Your task to perform on an android device: What's the news in Chile? Image 0: 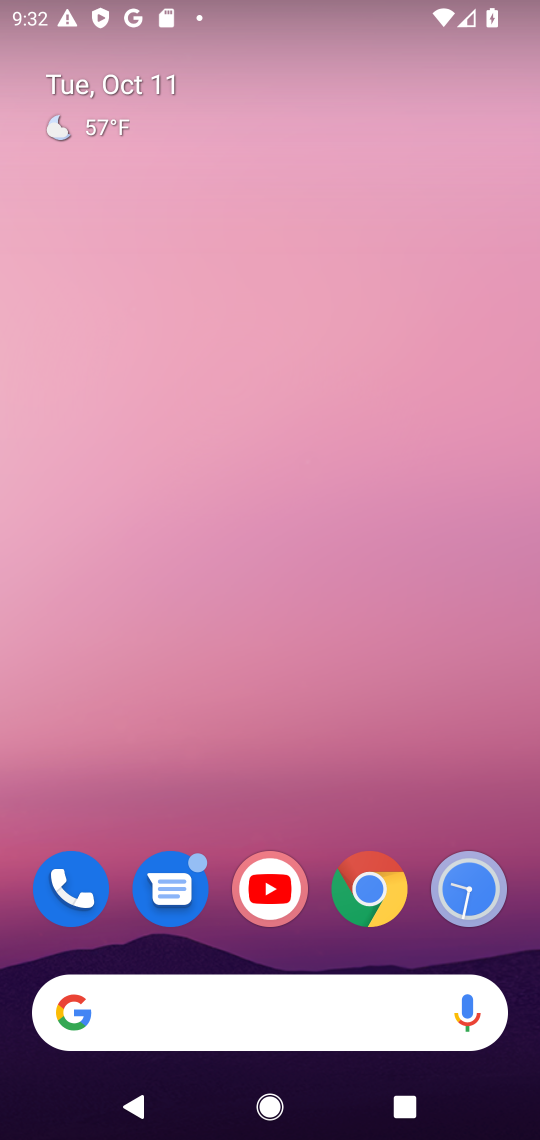
Step 0: click (323, 1007)
Your task to perform on an android device: What's the news in Chile? Image 1: 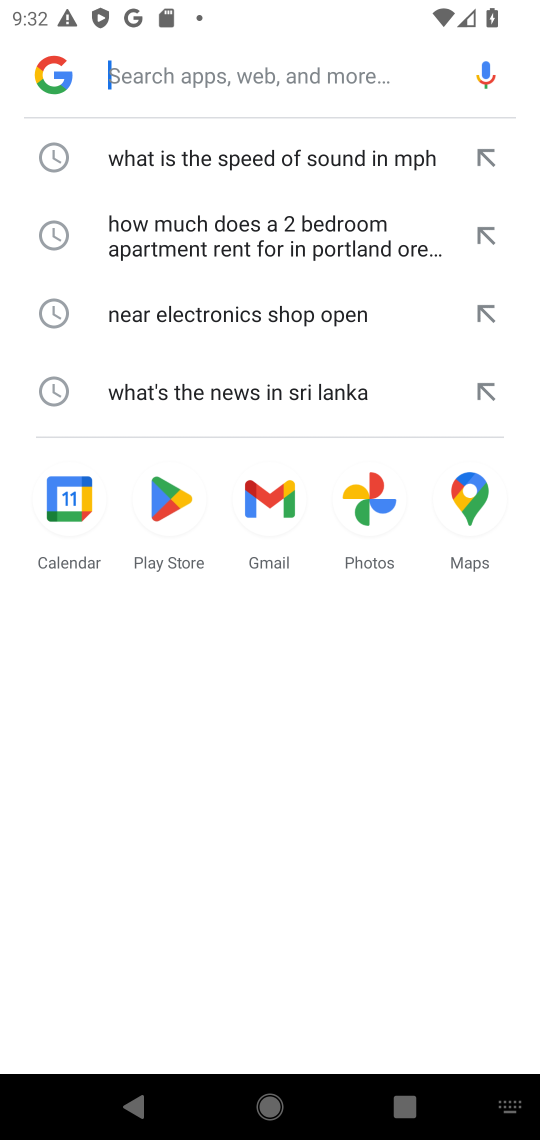
Step 1: click (159, 63)
Your task to perform on an android device: What's the news in Chile? Image 2: 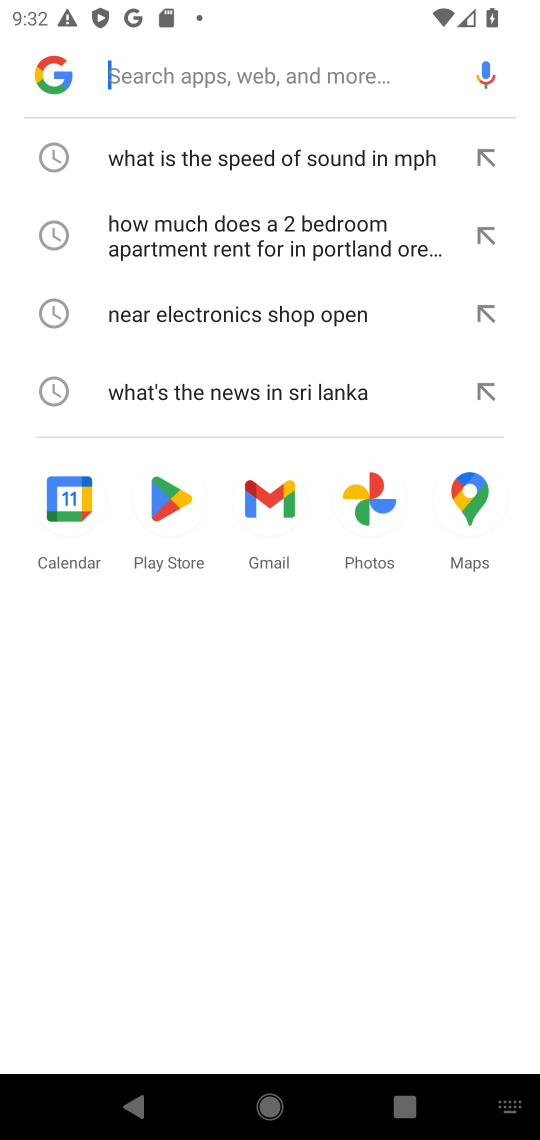
Step 2: type "What's the news in Chile?"
Your task to perform on an android device: What's the news in Chile? Image 3: 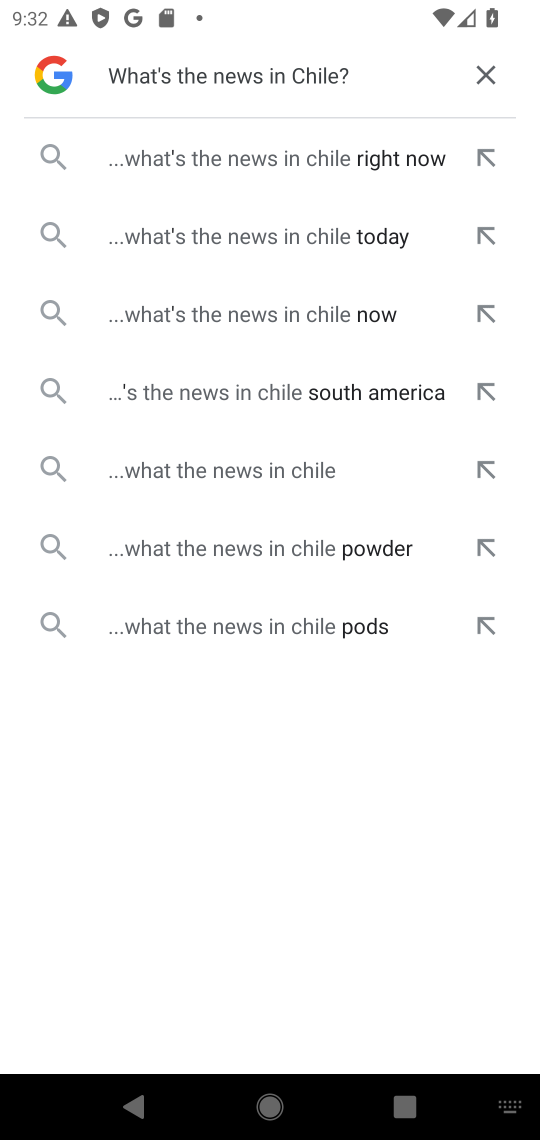
Step 3: click (213, 316)
Your task to perform on an android device: What's the news in Chile? Image 4: 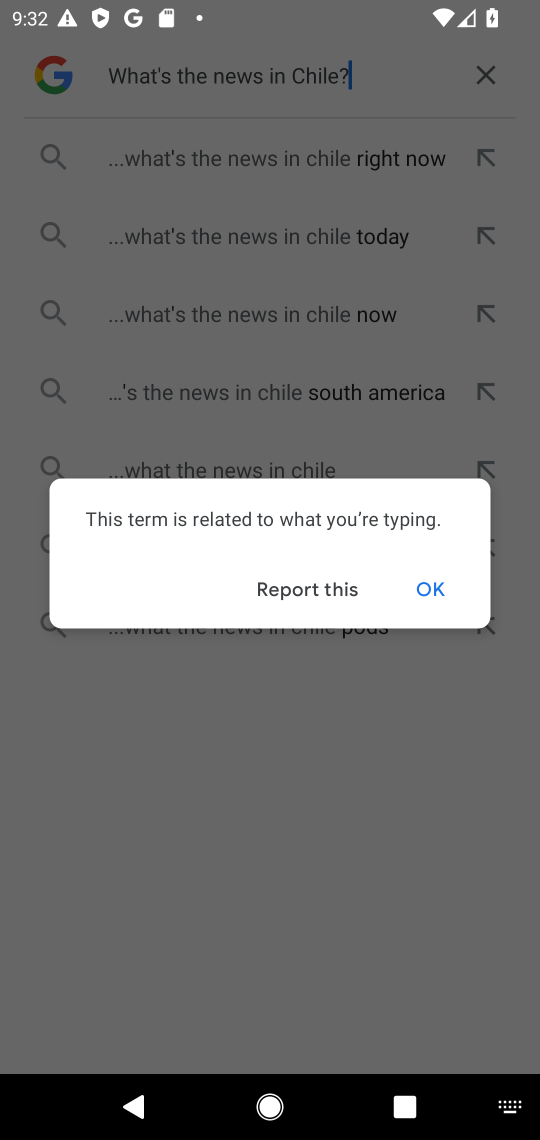
Step 4: click (411, 587)
Your task to perform on an android device: What's the news in Chile? Image 5: 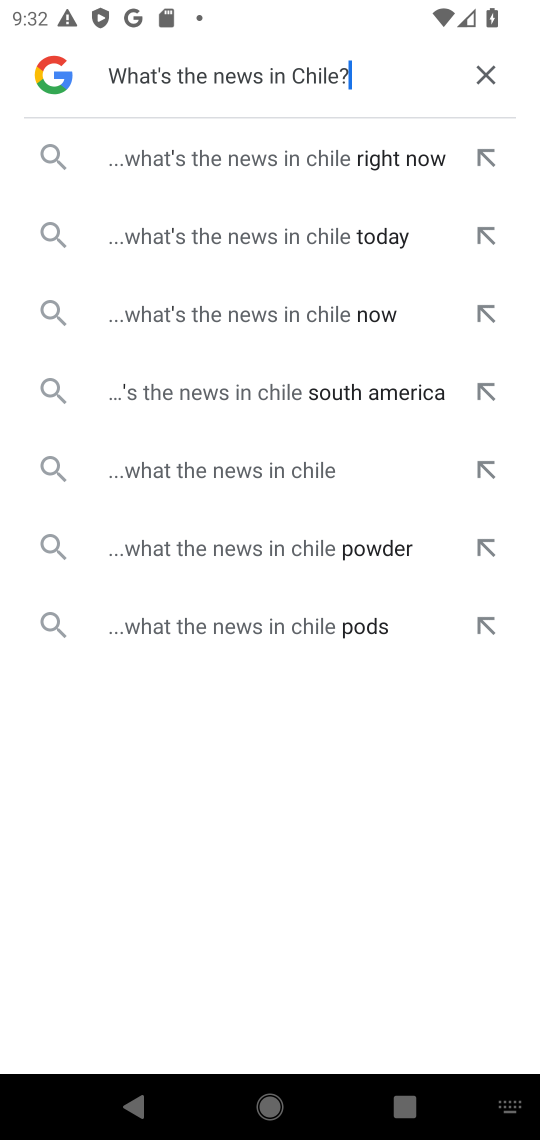
Step 5: click (260, 250)
Your task to perform on an android device: What's the news in Chile? Image 6: 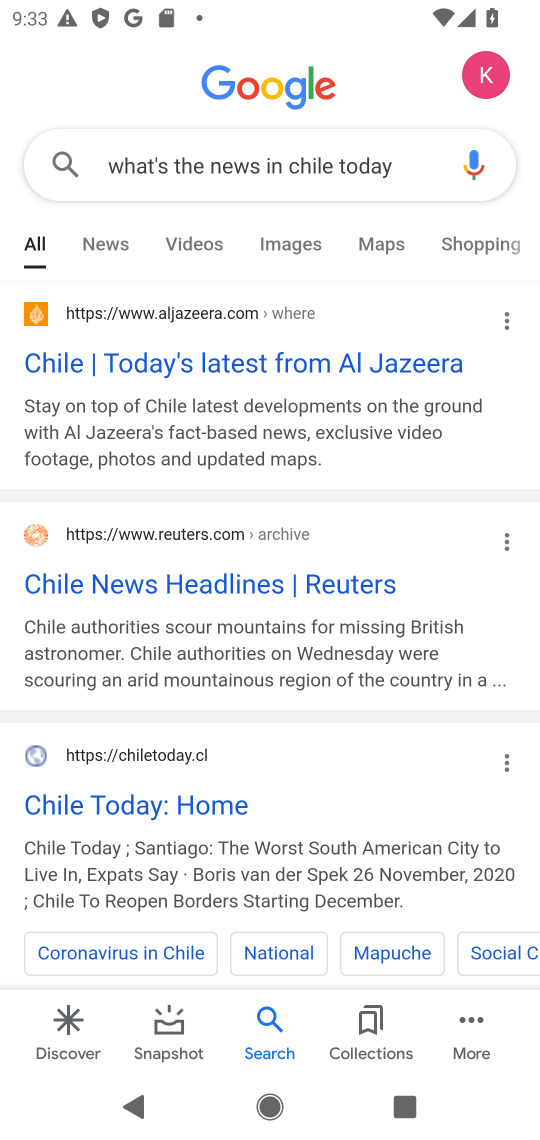
Step 6: task complete